Your task to perform on an android device: Open the calendar and show me this week's events? Image 0: 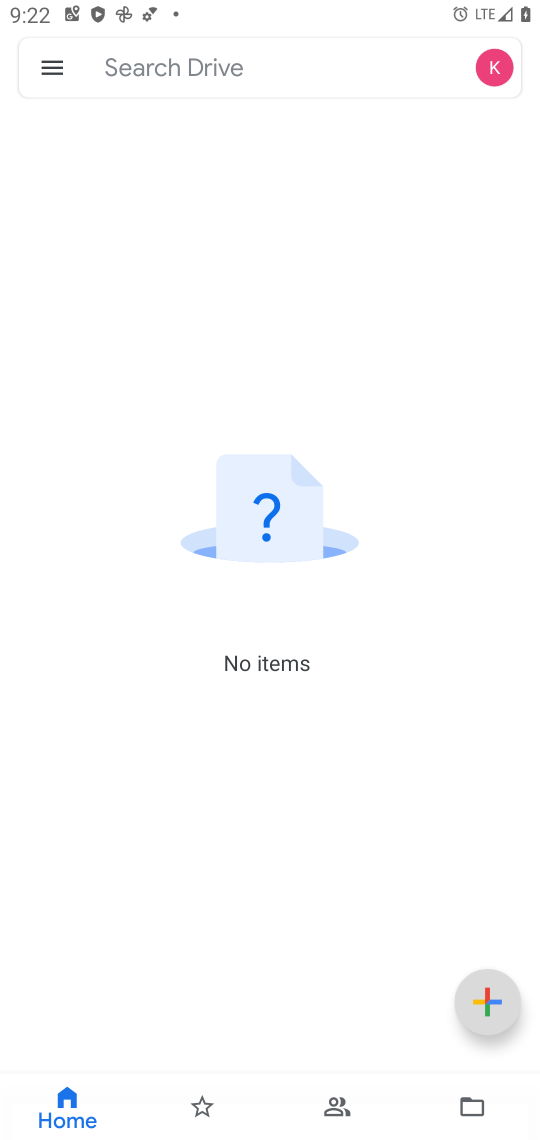
Step 0: press home button
Your task to perform on an android device: Open the calendar and show me this week's events? Image 1: 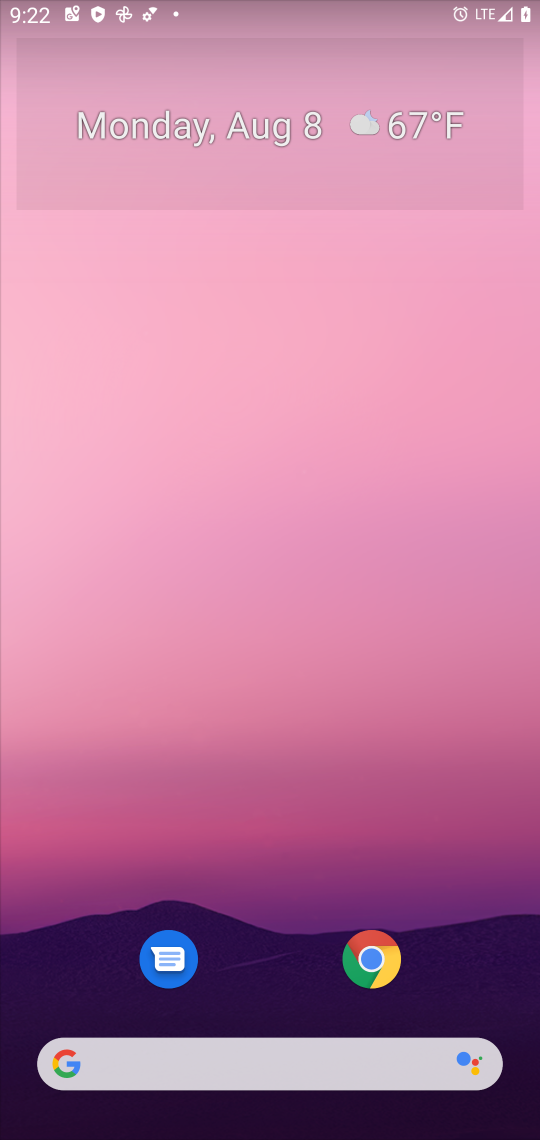
Step 1: drag from (497, 915) to (312, 93)
Your task to perform on an android device: Open the calendar and show me this week's events? Image 2: 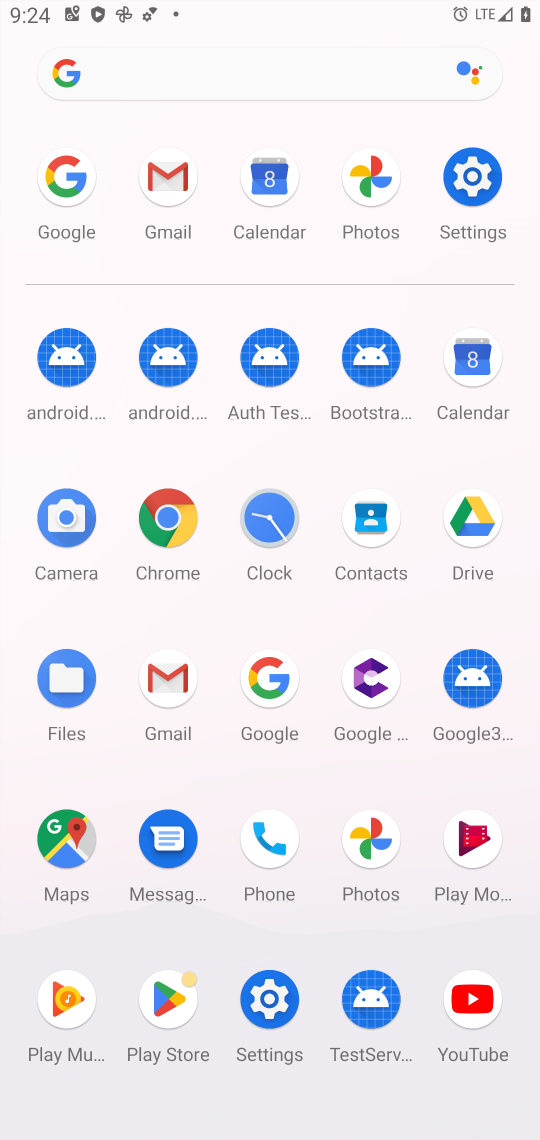
Step 2: click (477, 344)
Your task to perform on an android device: Open the calendar and show me this week's events? Image 3: 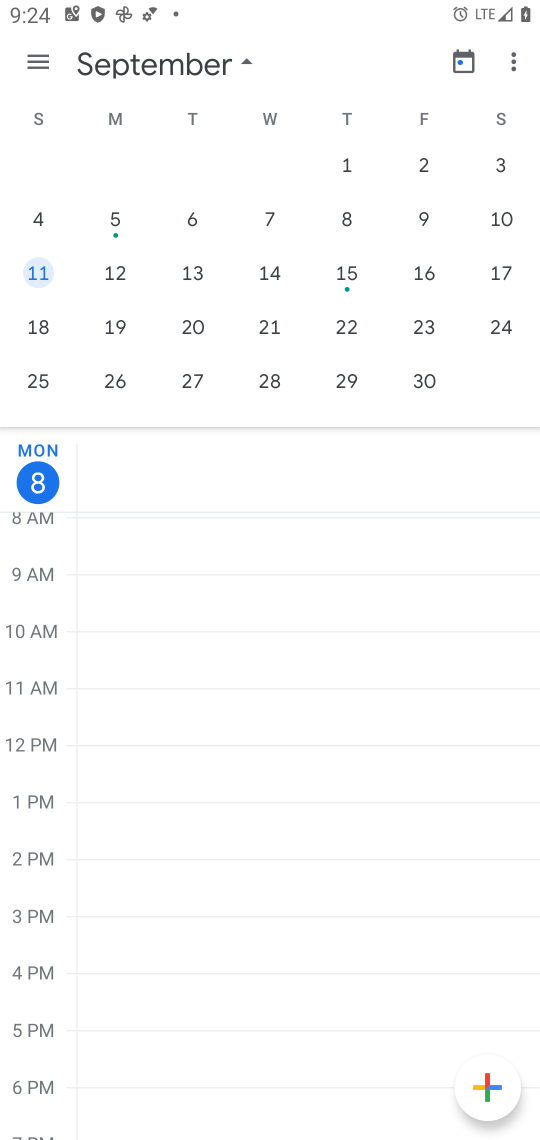
Step 3: task complete